Your task to perform on an android device: turn off priority inbox in the gmail app Image 0: 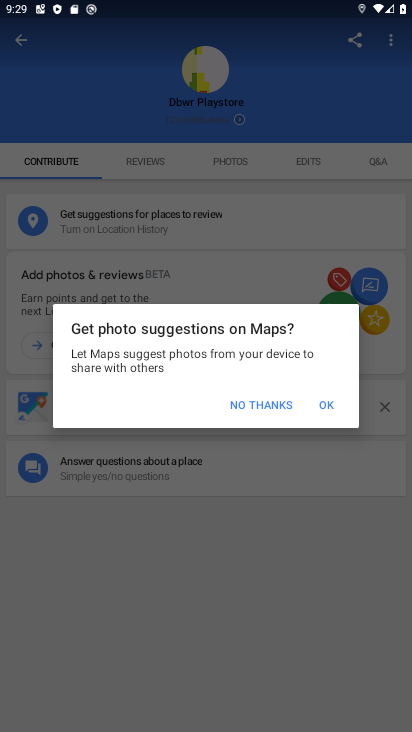
Step 0: press home button
Your task to perform on an android device: turn off priority inbox in the gmail app Image 1: 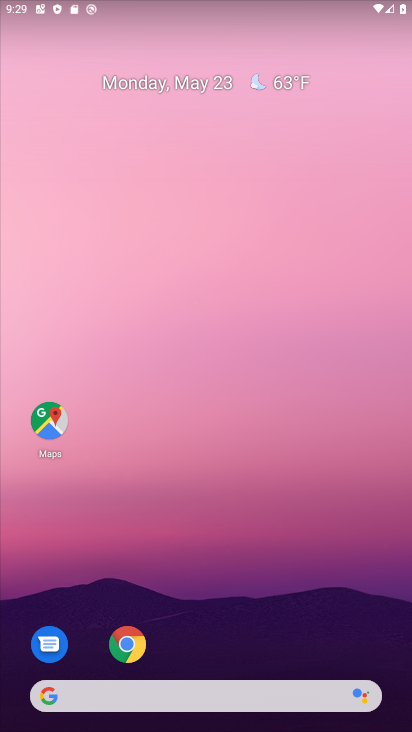
Step 1: press home button
Your task to perform on an android device: turn off priority inbox in the gmail app Image 2: 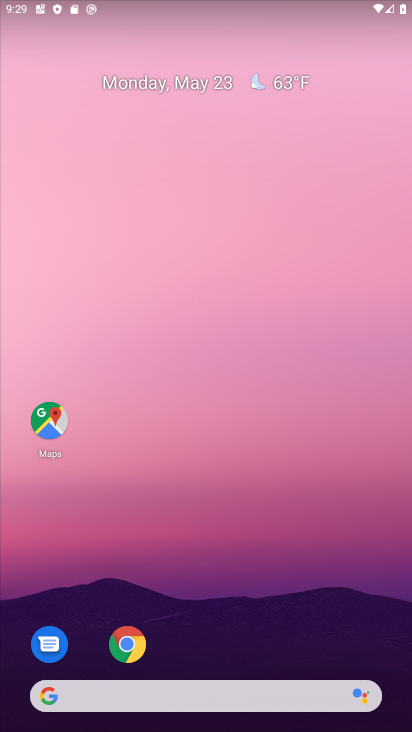
Step 2: drag from (310, 382) to (368, 132)
Your task to perform on an android device: turn off priority inbox in the gmail app Image 3: 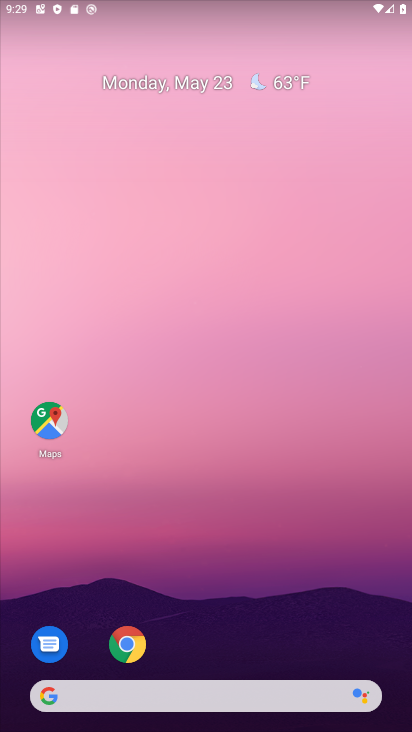
Step 3: drag from (183, 620) to (221, 120)
Your task to perform on an android device: turn off priority inbox in the gmail app Image 4: 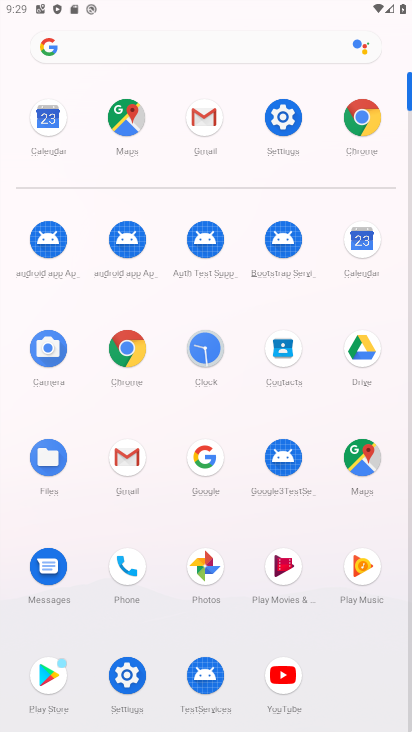
Step 4: click (202, 116)
Your task to perform on an android device: turn off priority inbox in the gmail app Image 5: 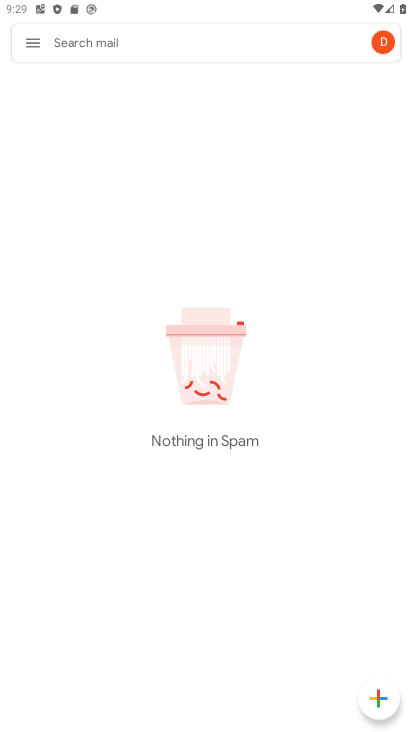
Step 5: click (30, 39)
Your task to perform on an android device: turn off priority inbox in the gmail app Image 6: 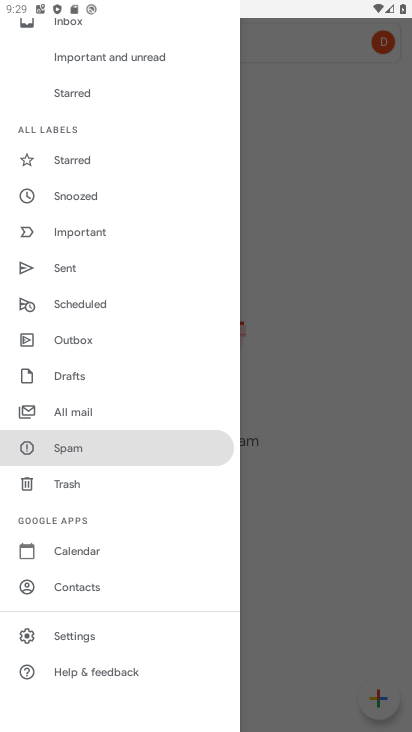
Step 6: click (94, 642)
Your task to perform on an android device: turn off priority inbox in the gmail app Image 7: 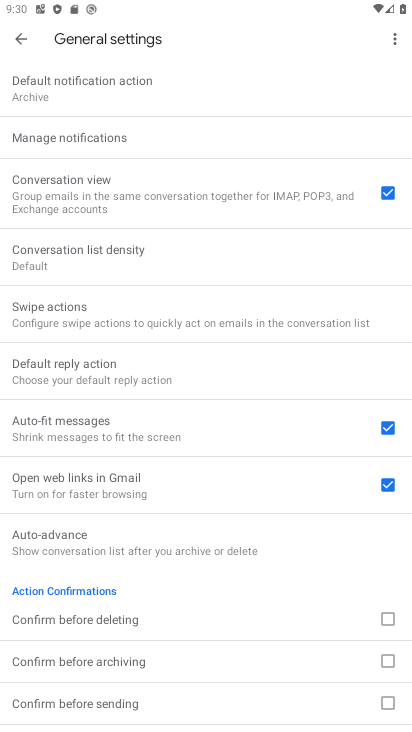
Step 7: click (26, 36)
Your task to perform on an android device: turn off priority inbox in the gmail app Image 8: 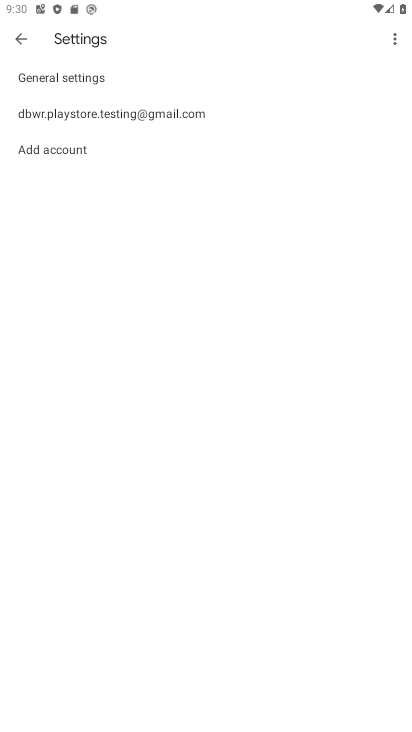
Step 8: click (142, 114)
Your task to perform on an android device: turn off priority inbox in the gmail app Image 9: 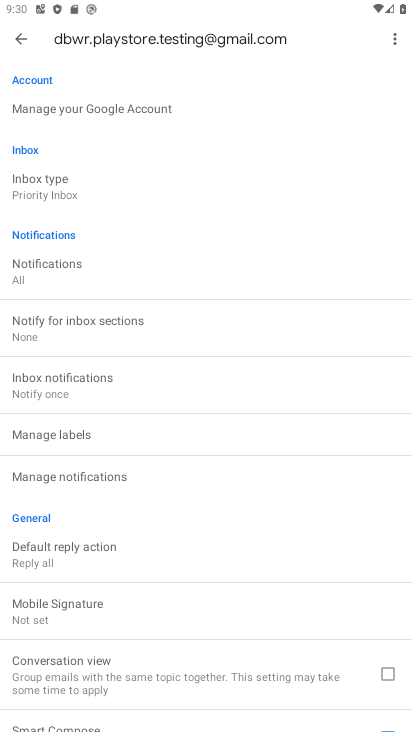
Step 9: click (87, 187)
Your task to perform on an android device: turn off priority inbox in the gmail app Image 10: 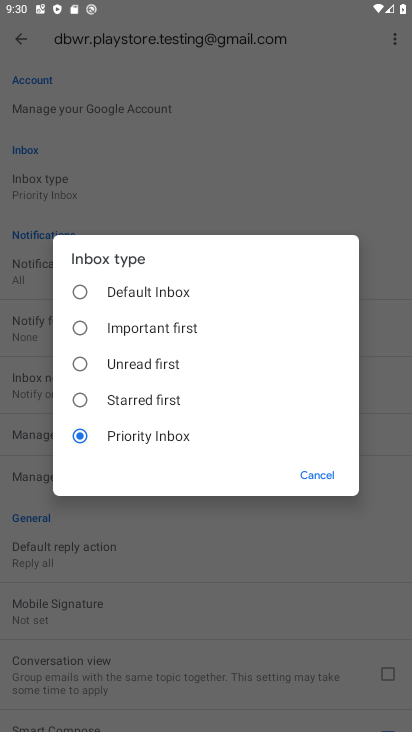
Step 10: click (126, 433)
Your task to perform on an android device: turn off priority inbox in the gmail app Image 11: 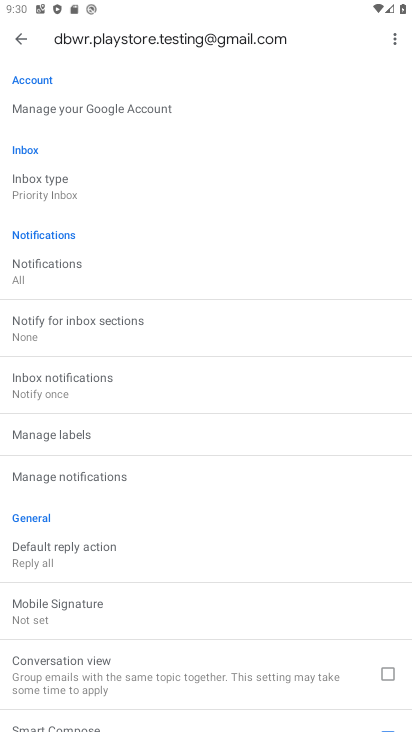
Step 11: task complete